Your task to perform on an android device: Search for vegetarian restaurants on Maps Image 0: 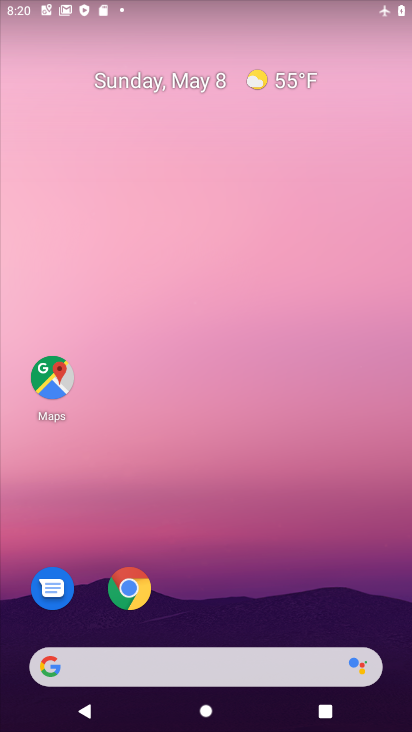
Step 0: drag from (330, 621) to (222, 67)
Your task to perform on an android device: Search for vegetarian restaurants on Maps Image 1: 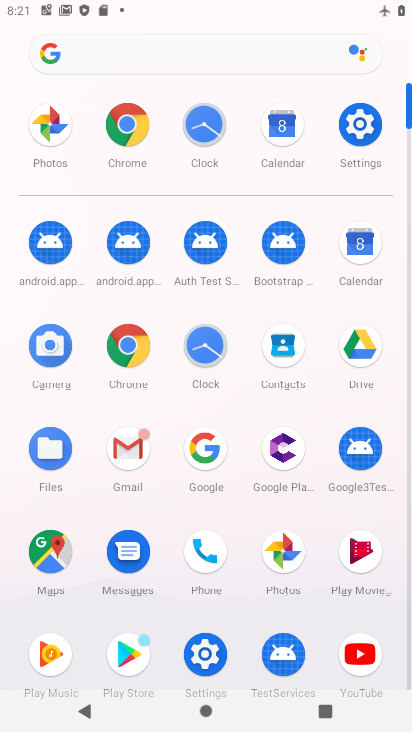
Step 1: click (47, 549)
Your task to perform on an android device: Search for vegetarian restaurants on Maps Image 2: 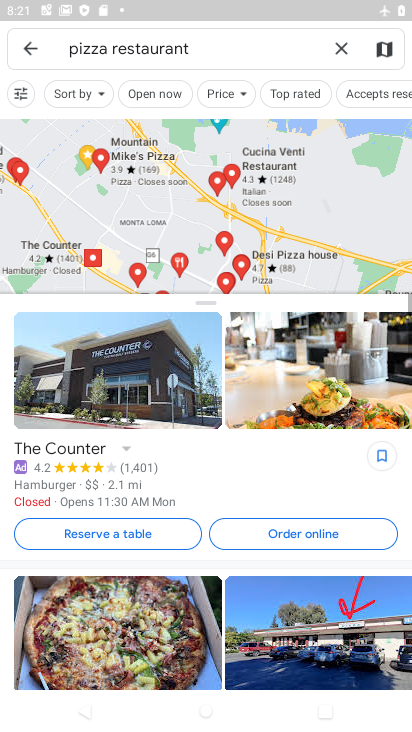
Step 2: click (340, 58)
Your task to perform on an android device: Search for vegetarian restaurants on Maps Image 3: 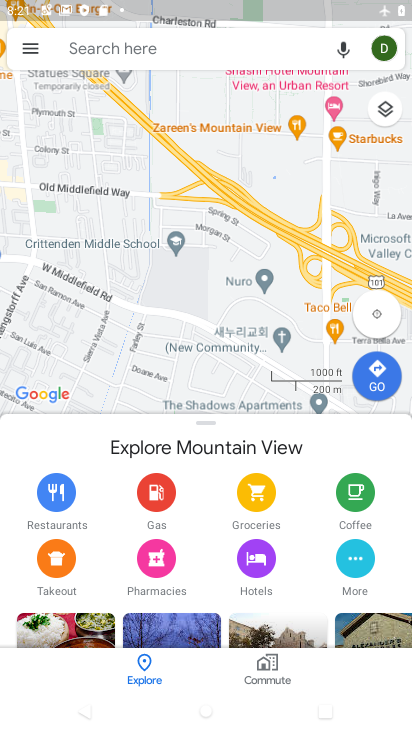
Step 3: click (93, 53)
Your task to perform on an android device: Search for vegetarian restaurants on Maps Image 4: 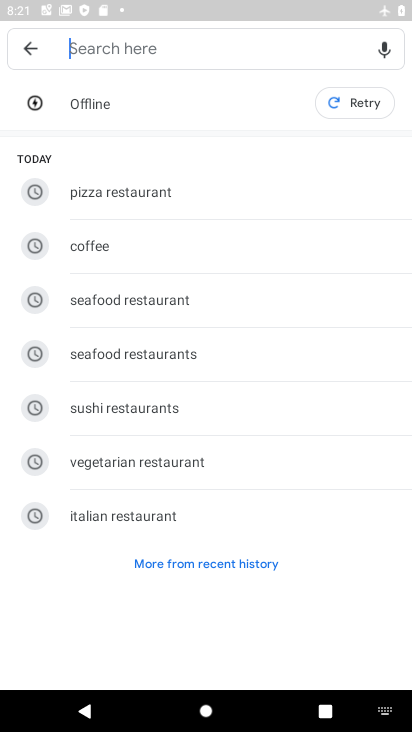
Step 4: click (140, 477)
Your task to perform on an android device: Search for vegetarian restaurants on Maps Image 5: 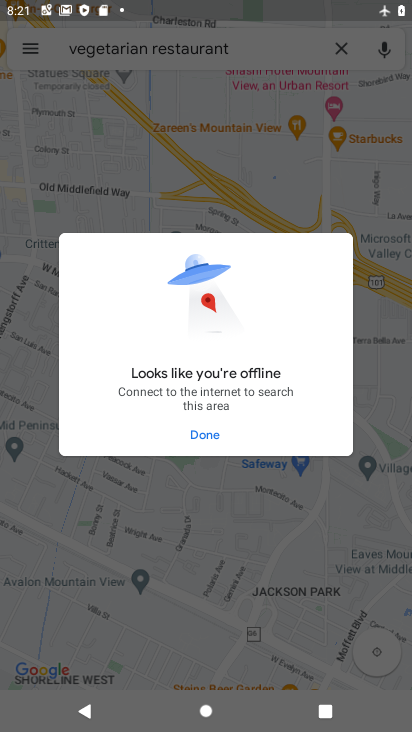
Step 5: task complete